Your task to perform on an android device: set default search engine in the chrome app Image 0: 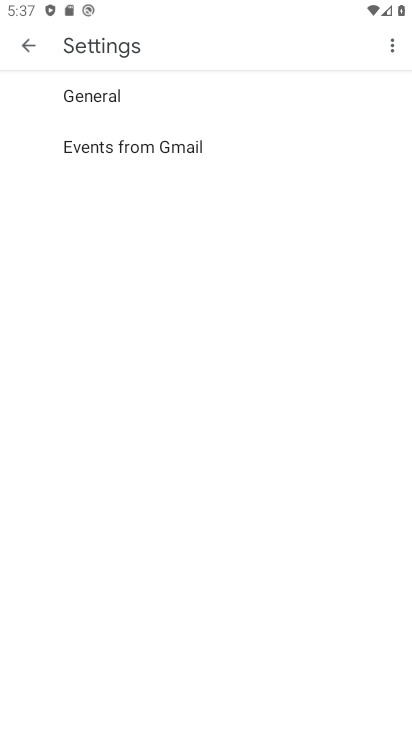
Step 0: click (24, 46)
Your task to perform on an android device: set default search engine in the chrome app Image 1: 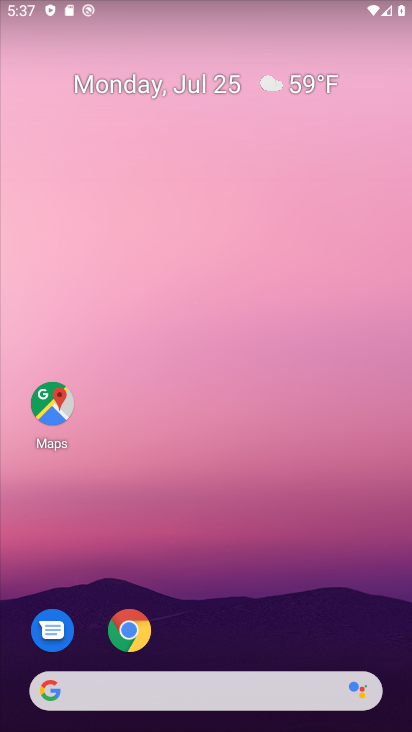
Step 1: click (136, 637)
Your task to perform on an android device: set default search engine in the chrome app Image 2: 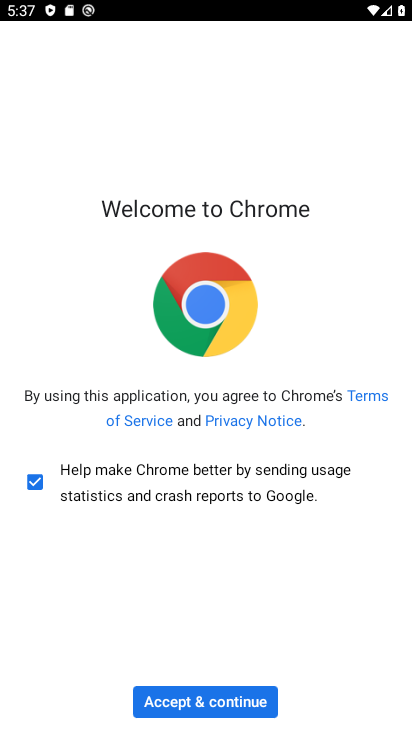
Step 2: click (180, 705)
Your task to perform on an android device: set default search engine in the chrome app Image 3: 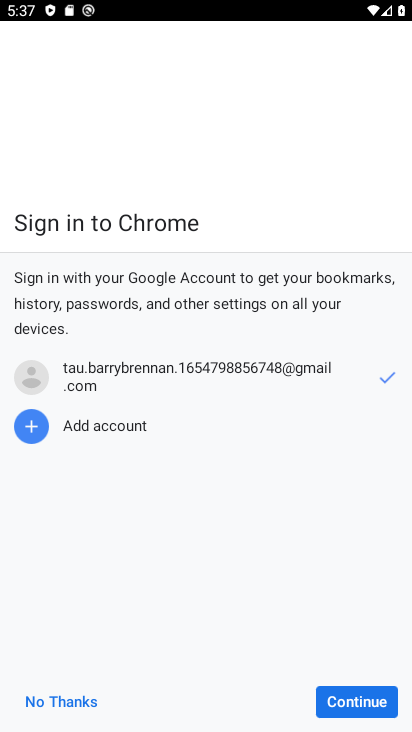
Step 3: click (359, 704)
Your task to perform on an android device: set default search engine in the chrome app Image 4: 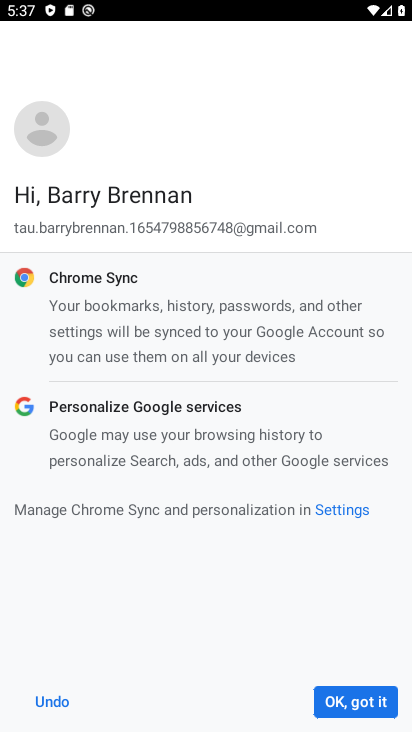
Step 4: click (359, 704)
Your task to perform on an android device: set default search engine in the chrome app Image 5: 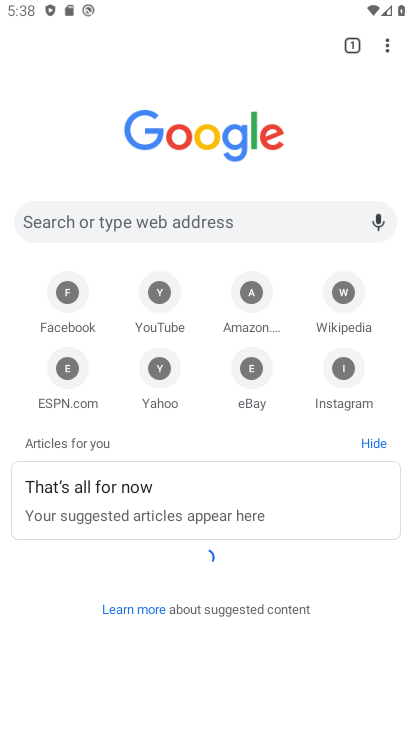
Step 5: click (359, 704)
Your task to perform on an android device: set default search engine in the chrome app Image 6: 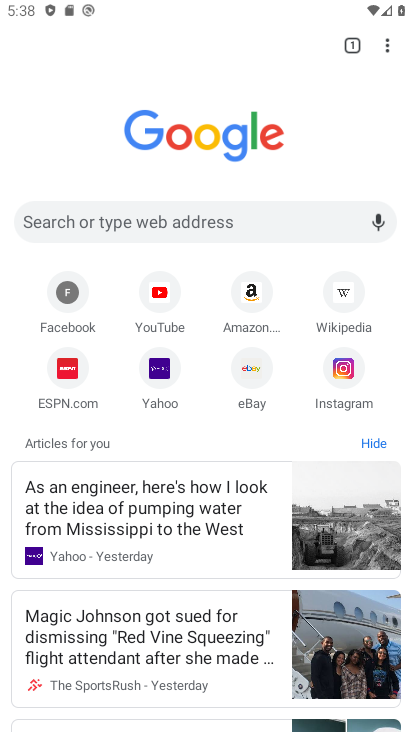
Step 6: click (386, 47)
Your task to perform on an android device: set default search engine in the chrome app Image 7: 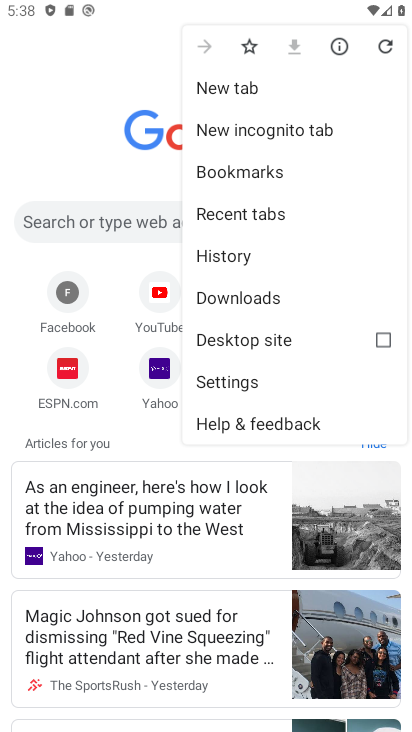
Step 7: click (239, 383)
Your task to perform on an android device: set default search engine in the chrome app Image 8: 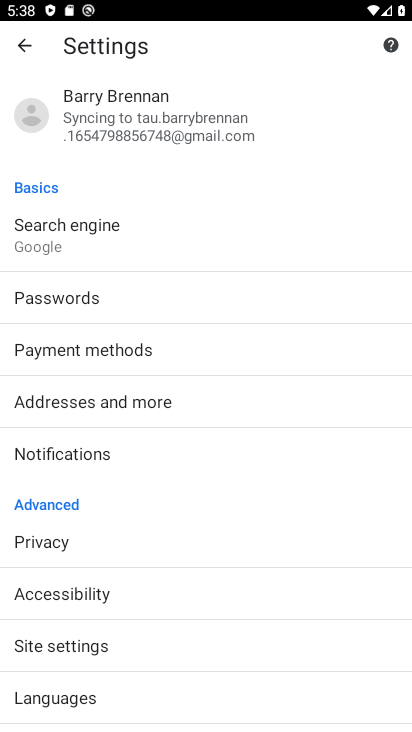
Step 8: click (57, 243)
Your task to perform on an android device: set default search engine in the chrome app Image 9: 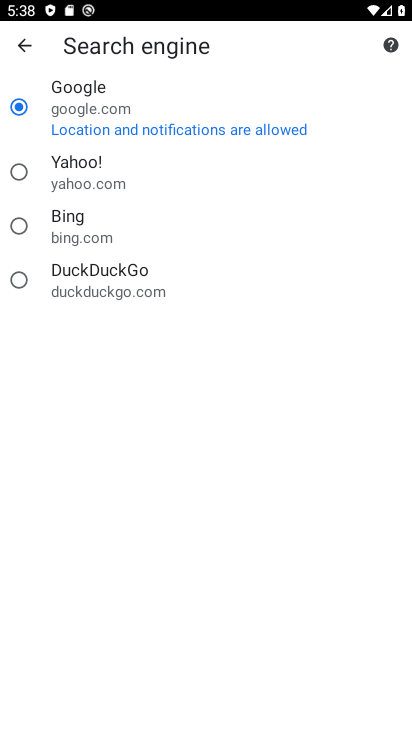
Step 9: click (16, 178)
Your task to perform on an android device: set default search engine in the chrome app Image 10: 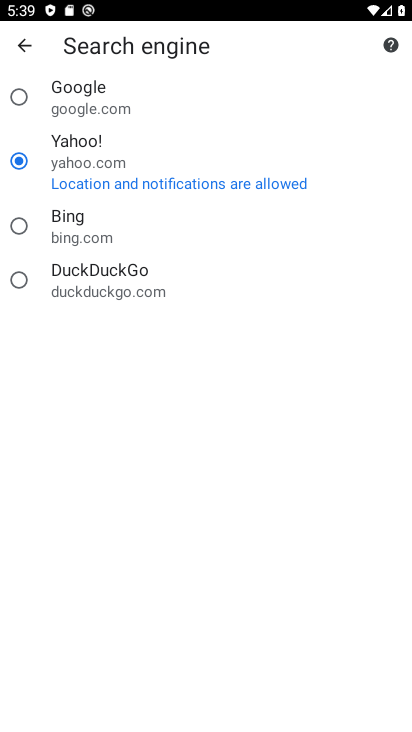
Step 10: task complete